Your task to perform on an android device: Search for "usb-c to usb-a" on ebay, select the first entry, and add it to the cart. Image 0: 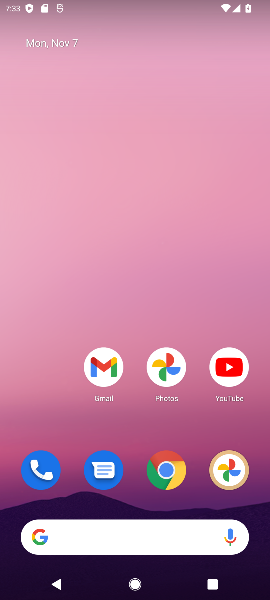
Step 0: click (165, 477)
Your task to perform on an android device: Search for "usb-c to usb-a" on ebay, select the first entry, and add it to the cart. Image 1: 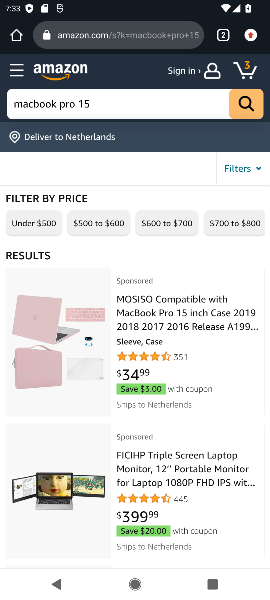
Step 1: click (112, 25)
Your task to perform on an android device: Search for "usb-c to usb-a" on ebay, select the first entry, and add it to the cart. Image 2: 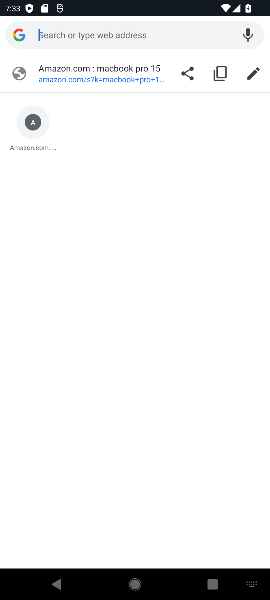
Step 2: type "ebay"
Your task to perform on an android device: Search for "usb-c to usb-a" on ebay, select the first entry, and add it to the cart. Image 3: 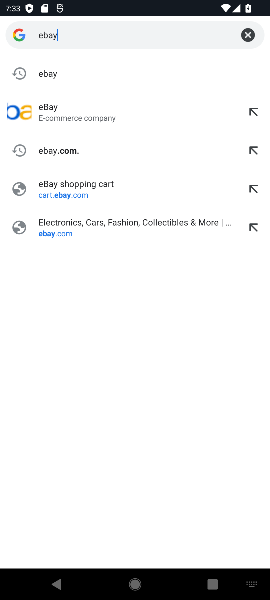
Step 3: click (90, 112)
Your task to perform on an android device: Search for "usb-c to usb-a" on ebay, select the first entry, and add it to the cart. Image 4: 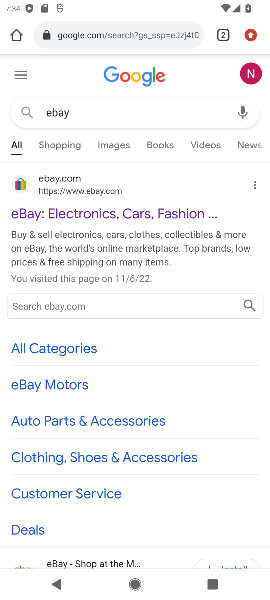
Step 4: click (69, 220)
Your task to perform on an android device: Search for "usb-c to usb-a" on ebay, select the first entry, and add it to the cart. Image 5: 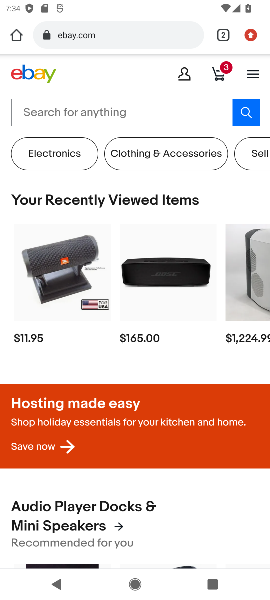
Step 5: click (83, 111)
Your task to perform on an android device: Search for "usb-c to usb-a" on ebay, select the first entry, and add it to the cart. Image 6: 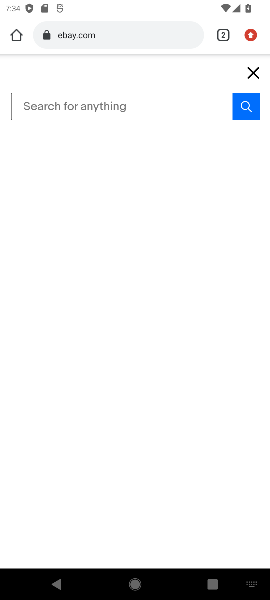
Step 6: type "usb c to usb a"
Your task to perform on an android device: Search for "usb-c to usb-a" on ebay, select the first entry, and add it to the cart. Image 7: 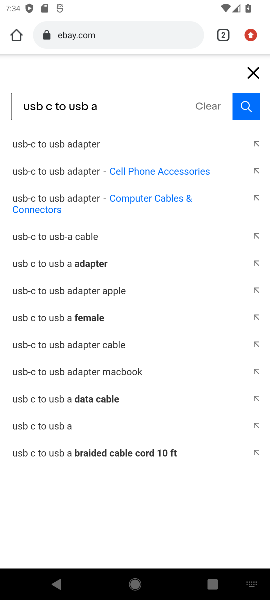
Step 7: click (248, 108)
Your task to perform on an android device: Search for "usb-c to usb-a" on ebay, select the first entry, and add it to the cart. Image 8: 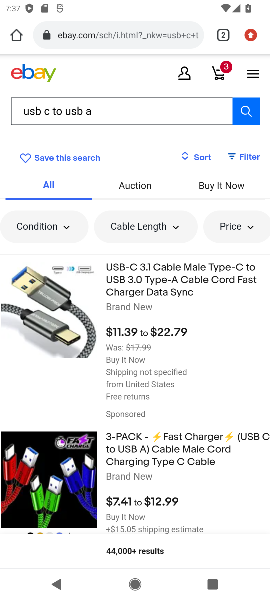
Step 8: click (185, 272)
Your task to perform on an android device: Search for "usb-c to usb-a" on ebay, select the first entry, and add it to the cart. Image 9: 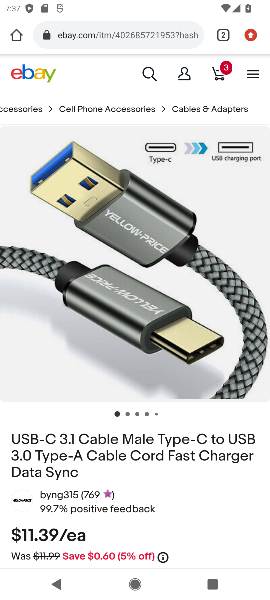
Step 9: drag from (118, 529) to (108, 228)
Your task to perform on an android device: Search for "usb-c to usb-a" on ebay, select the first entry, and add it to the cart. Image 10: 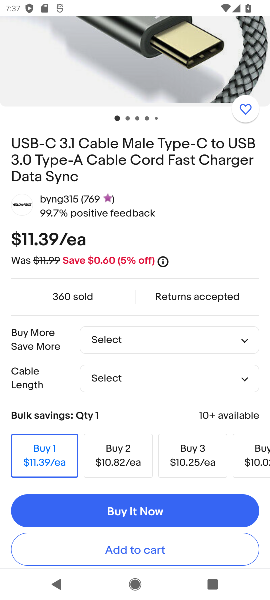
Step 10: click (129, 546)
Your task to perform on an android device: Search for "usb-c to usb-a" on ebay, select the first entry, and add it to the cart. Image 11: 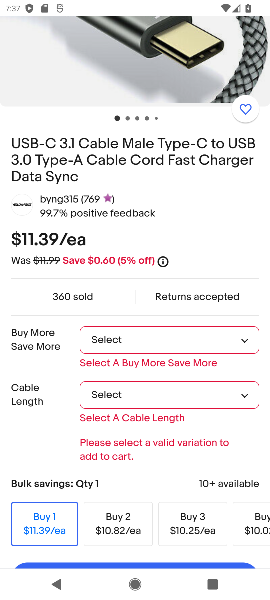
Step 11: click (165, 337)
Your task to perform on an android device: Search for "usb-c to usb-a" on ebay, select the first entry, and add it to the cart. Image 12: 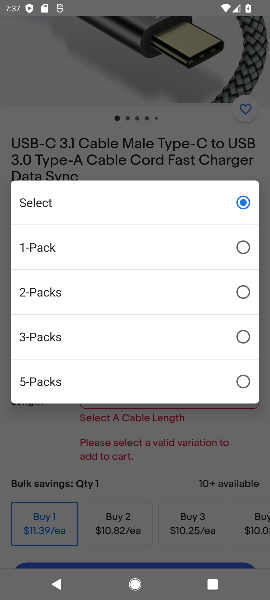
Step 12: click (162, 383)
Your task to perform on an android device: Search for "usb-c to usb-a" on ebay, select the first entry, and add it to the cart. Image 13: 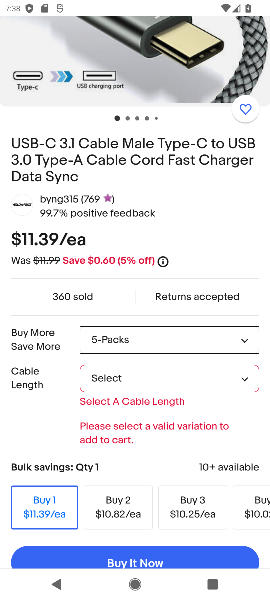
Step 13: click (139, 372)
Your task to perform on an android device: Search for "usb-c to usb-a" on ebay, select the first entry, and add it to the cart. Image 14: 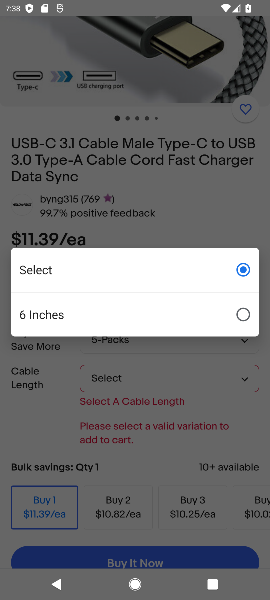
Step 14: click (127, 306)
Your task to perform on an android device: Search for "usb-c to usb-a" on ebay, select the first entry, and add it to the cart. Image 15: 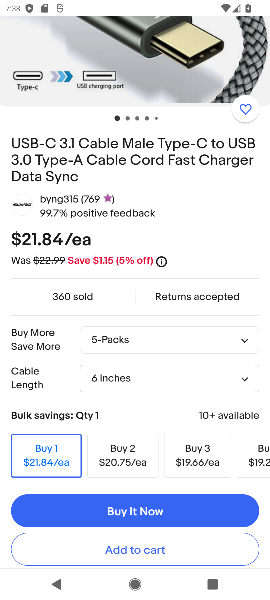
Step 15: click (109, 556)
Your task to perform on an android device: Search for "usb-c to usb-a" on ebay, select the first entry, and add it to the cart. Image 16: 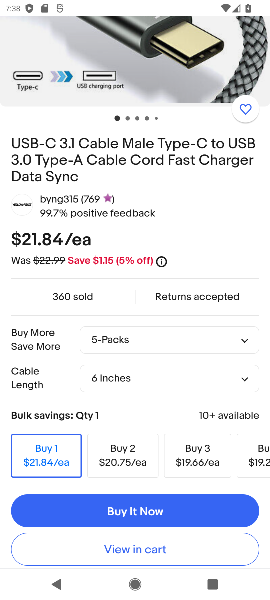
Step 16: task complete